Your task to perform on an android device: Open Chrome and go to settings Image 0: 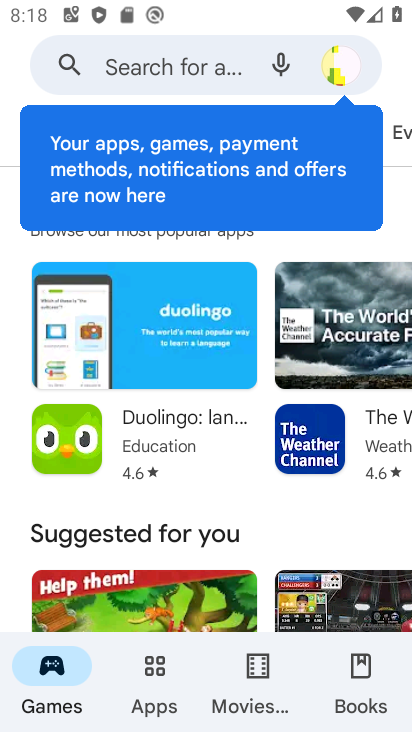
Step 0: press home button
Your task to perform on an android device: Open Chrome and go to settings Image 1: 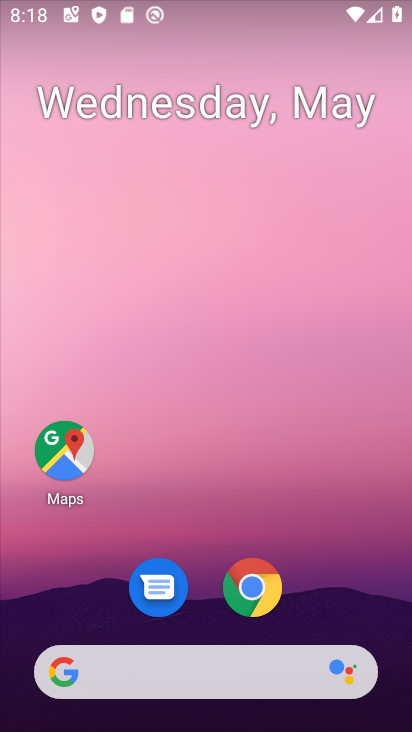
Step 1: click (249, 588)
Your task to perform on an android device: Open Chrome and go to settings Image 2: 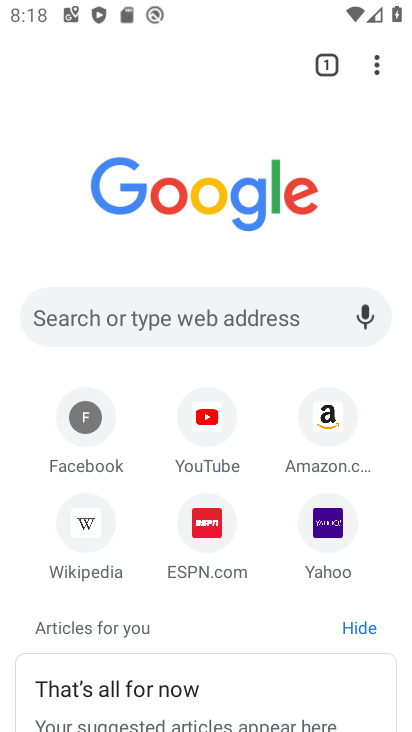
Step 2: click (374, 71)
Your task to perform on an android device: Open Chrome and go to settings Image 3: 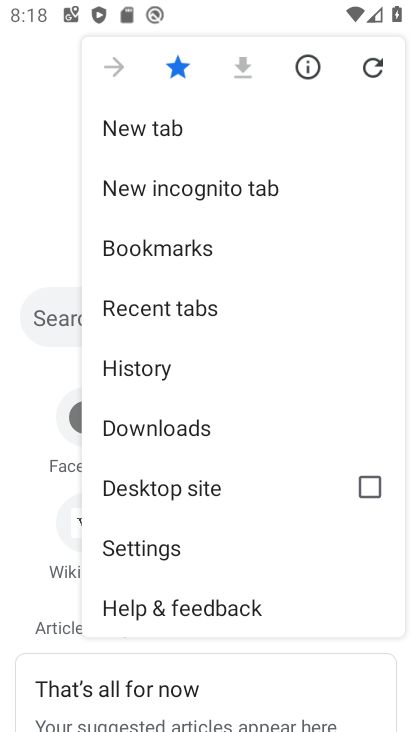
Step 3: click (146, 549)
Your task to perform on an android device: Open Chrome and go to settings Image 4: 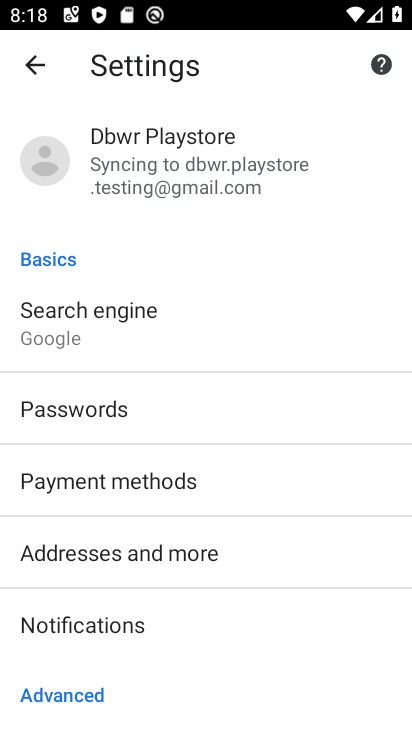
Step 4: task complete